Your task to perform on an android device: What's the weather going to be this weekend? Image 0: 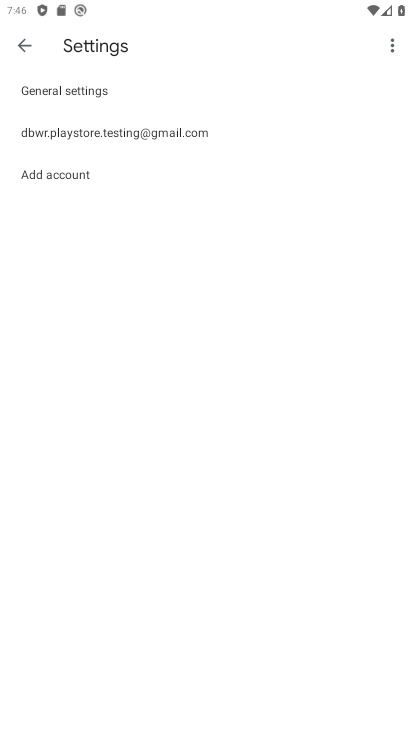
Step 0: press home button
Your task to perform on an android device: What's the weather going to be this weekend? Image 1: 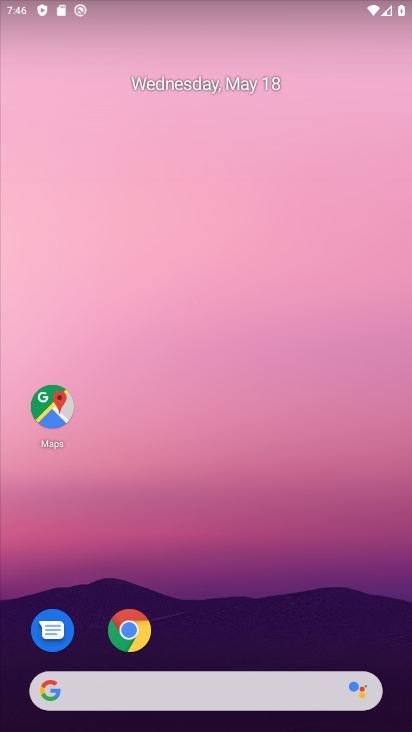
Step 1: click (151, 692)
Your task to perform on an android device: What's the weather going to be this weekend? Image 2: 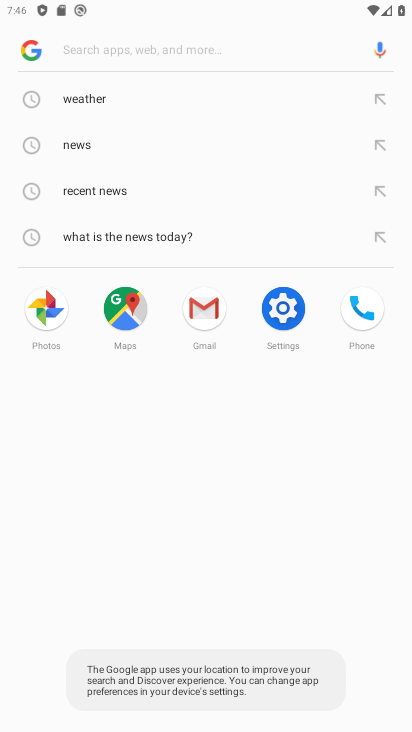
Step 2: type "What's the weather going to be this weekend?"
Your task to perform on an android device: What's the weather going to be this weekend? Image 3: 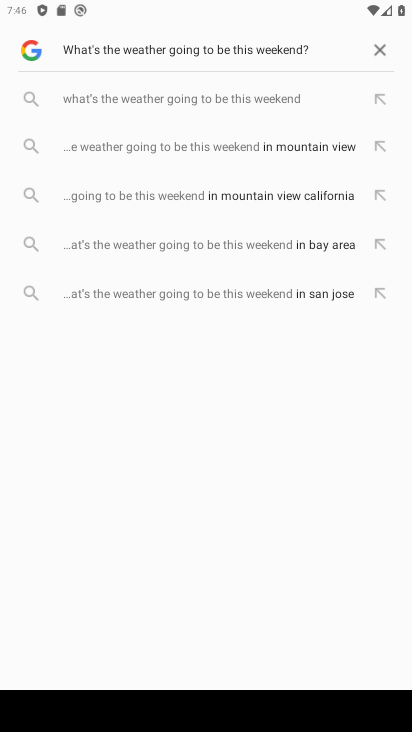
Step 3: click (263, 85)
Your task to perform on an android device: What's the weather going to be this weekend? Image 4: 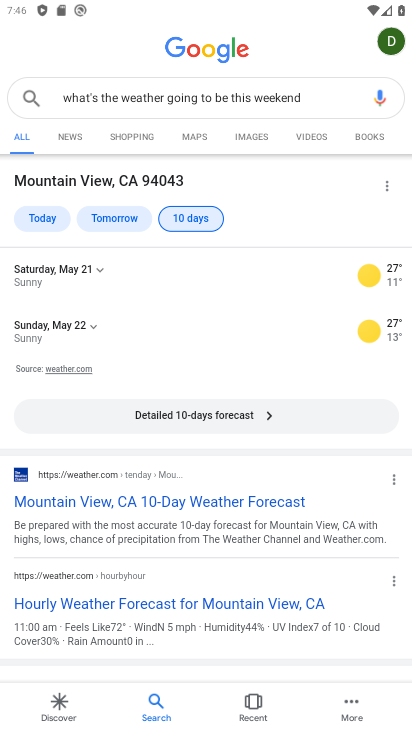
Step 4: task complete